Your task to perform on an android device: Do I have any events tomorrow? Image 0: 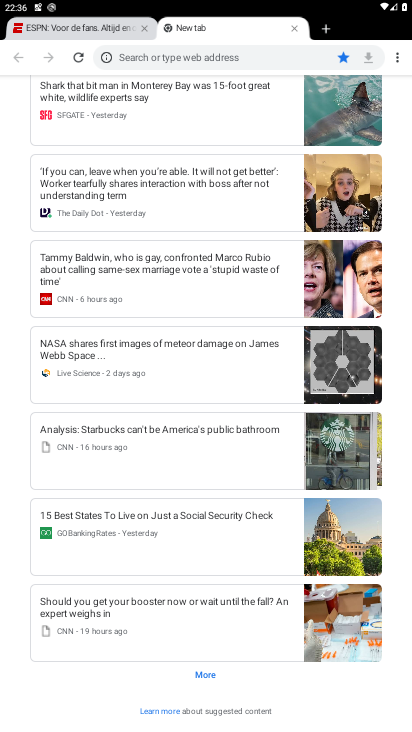
Step 0: press home button
Your task to perform on an android device: Do I have any events tomorrow? Image 1: 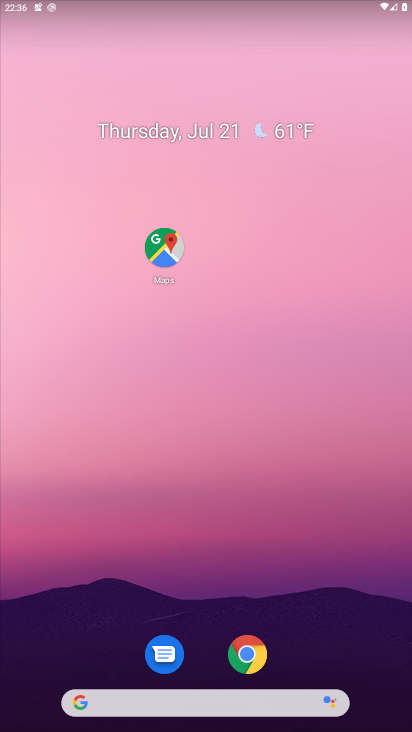
Step 1: drag from (31, 707) to (275, 1)
Your task to perform on an android device: Do I have any events tomorrow? Image 2: 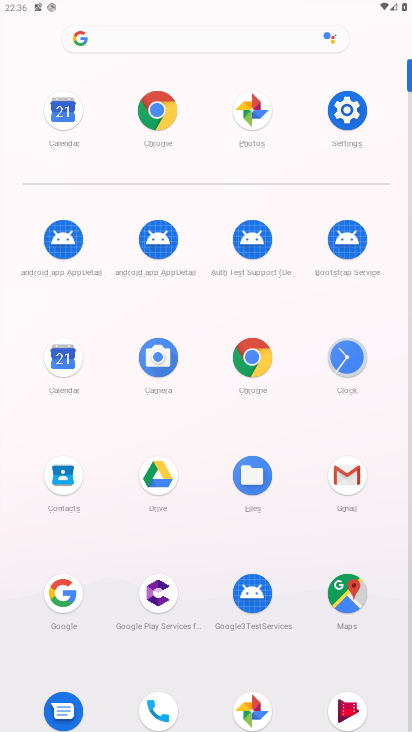
Step 2: click (55, 376)
Your task to perform on an android device: Do I have any events tomorrow? Image 3: 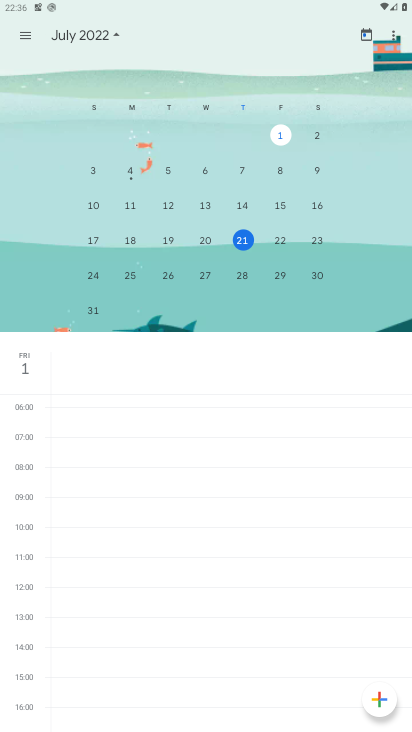
Step 3: task complete